Your task to perform on an android device: Is it going to rain today? Image 0: 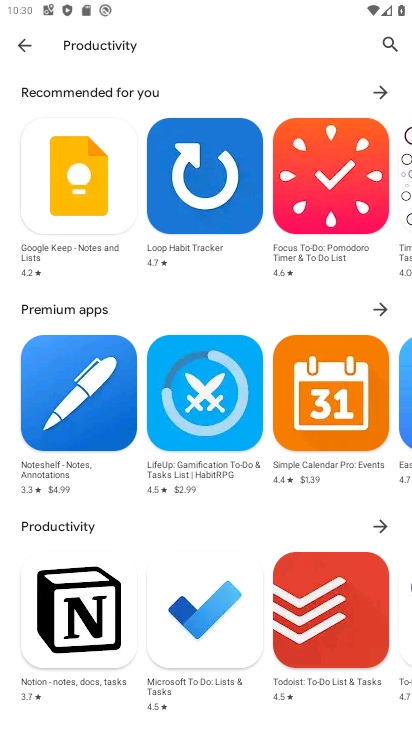
Step 0: press home button
Your task to perform on an android device: Is it going to rain today? Image 1: 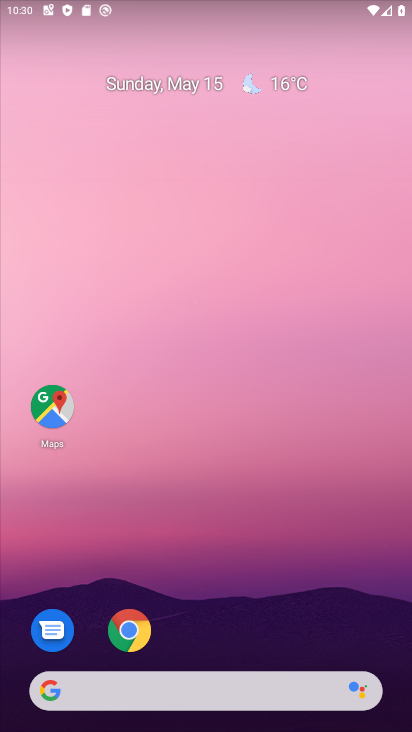
Step 1: drag from (231, 630) to (227, 156)
Your task to perform on an android device: Is it going to rain today? Image 2: 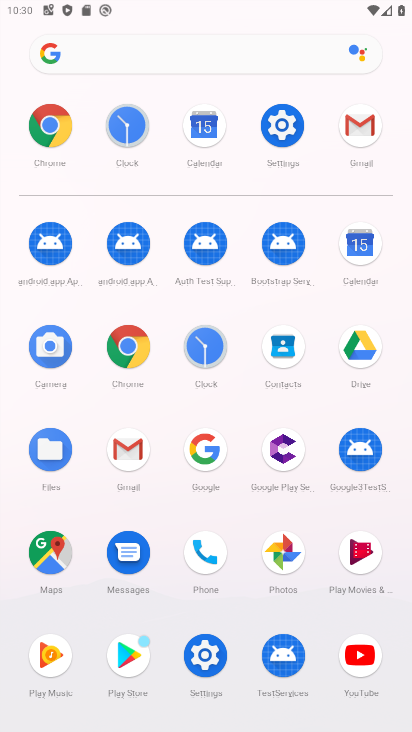
Step 2: click (211, 450)
Your task to perform on an android device: Is it going to rain today? Image 3: 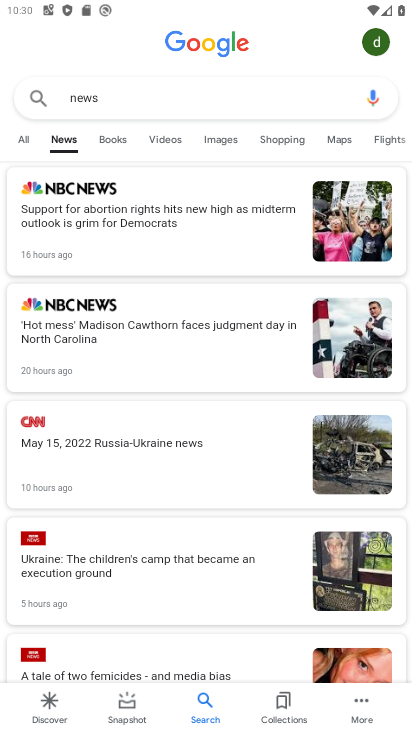
Step 3: click (101, 106)
Your task to perform on an android device: Is it going to rain today? Image 4: 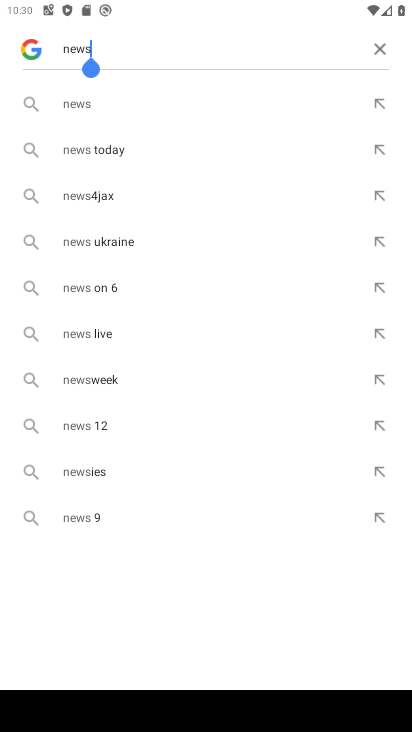
Step 4: click (375, 41)
Your task to perform on an android device: Is it going to rain today? Image 5: 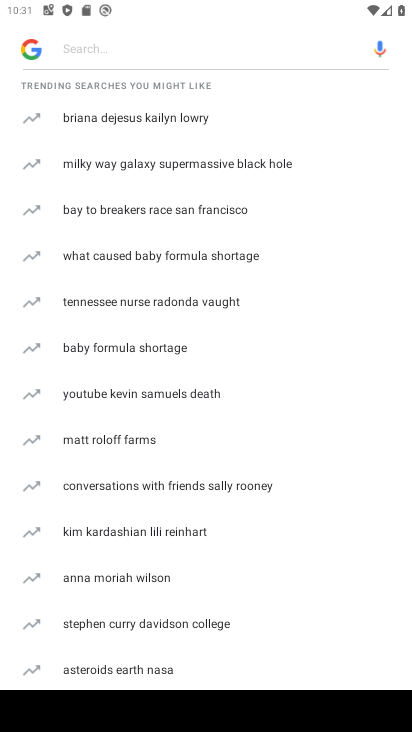
Step 5: type "wea"
Your task to perform on an android device: Is it going to rain today? Image 6: 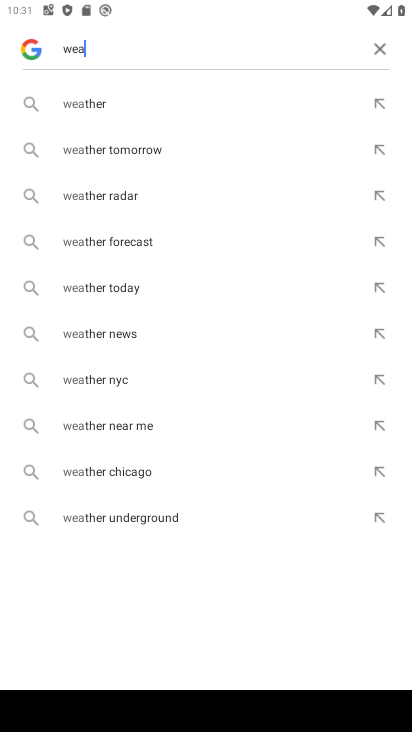
Step 6: click (119, 99)
Your task to perform on an android device: Is it going to rain today? Image 7: 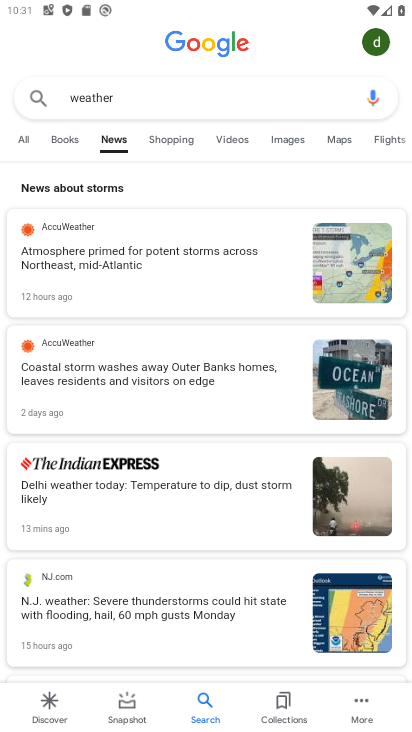
Step 7: click (25, 140)
Your task to perform on an android device: Is it going to rain today? Image 8: 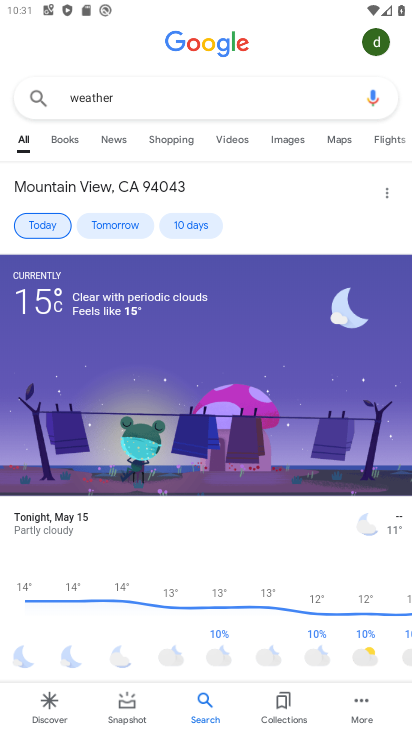
Step 8: task complete